Your task to perform on an android device: Open my contact list Image 0: 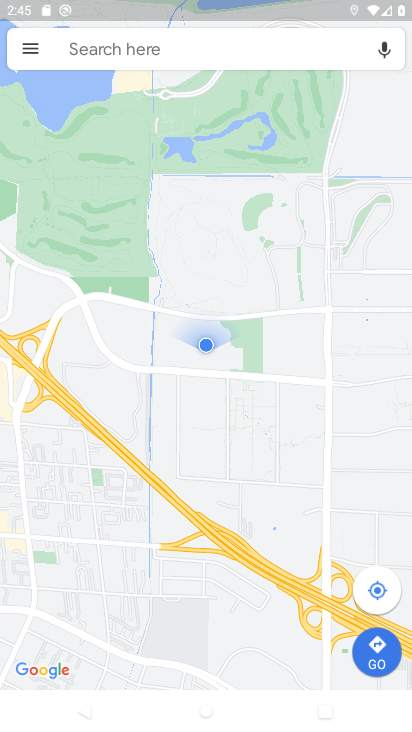
Step 0: press home button
Your task to perform on an android device: Open my contact list Image 1: 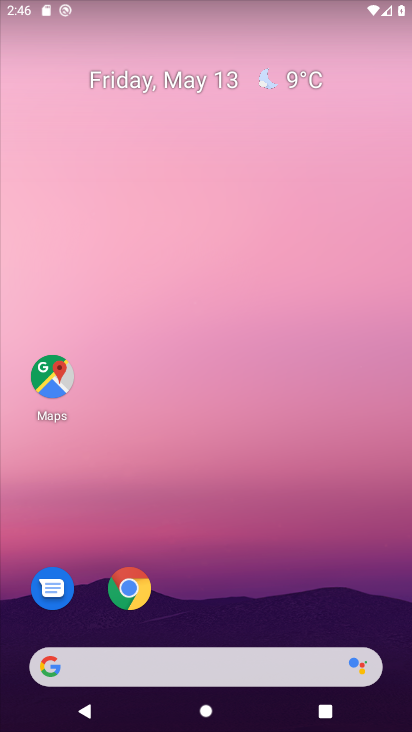
Step 1: drag from (390, 613) to (337, 198)
Your task to perform on an android device: Open my contact list Image 2: 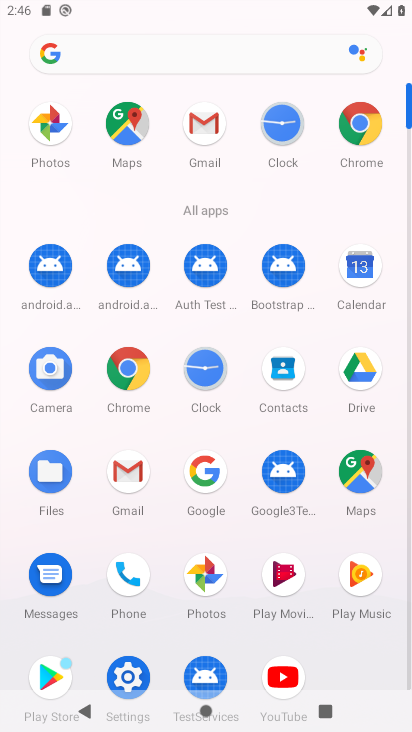
Step 2: click (276, 370)
Your task to perform on an android device: Open my contact list Image 3: 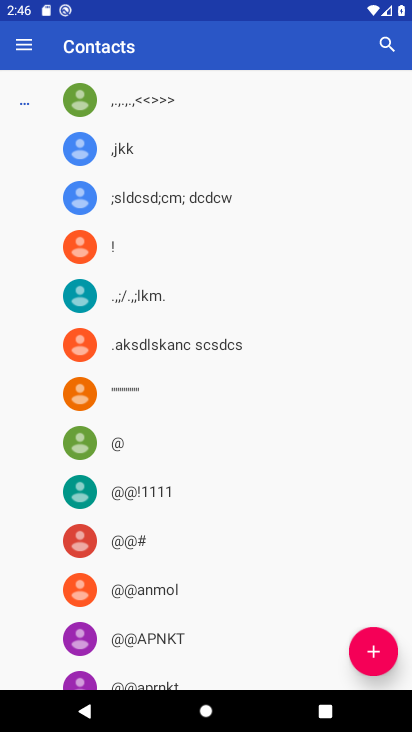
Step 3: task complete